Your task to perform on an android device: turn on notifications settings in the gmail app Image 0: 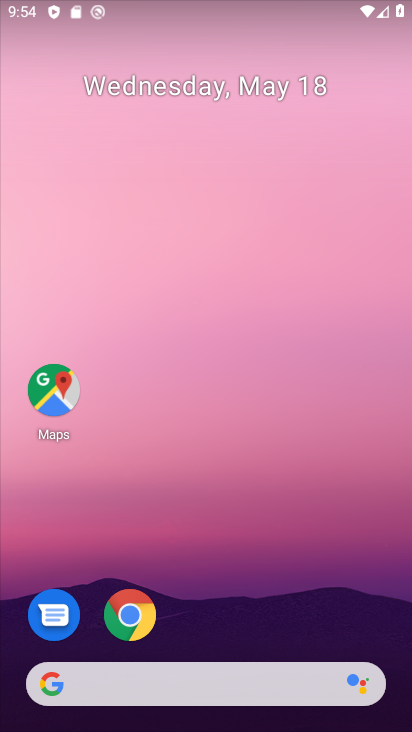
Step 0: drag from (243, 656) to (232, 261)
Your task to perform on an android device: turn on notifications settings in the gmail app Image 1: 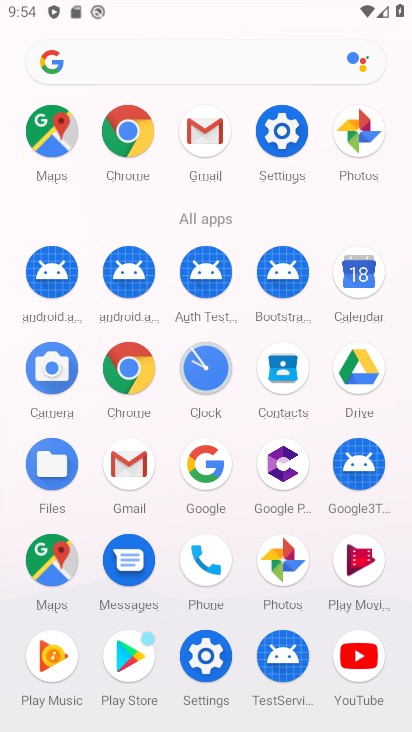
Step 1: click (194, 130)
Your task to perform on an android device: turn on notifications settings in the gmail app Image 2: 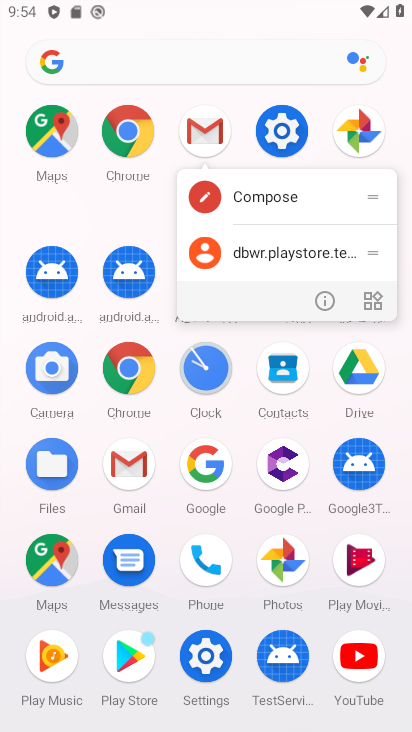
Step 2: click (213, 125)
Your task to perform on an android device: turn on notifications settings in the gmail app Image 3: 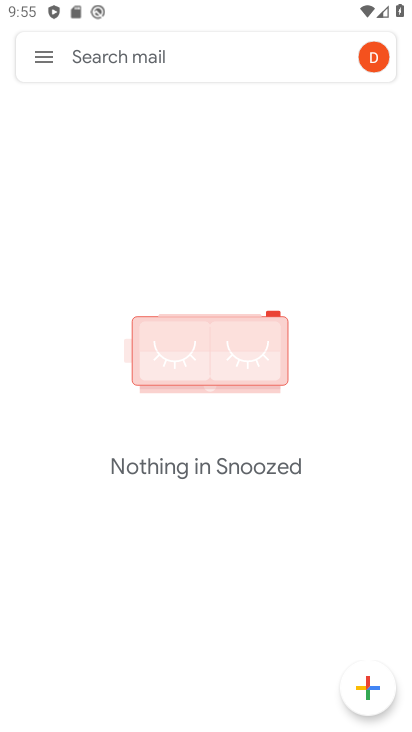
Step 3: click (52, 49)
Your task to perform on an android device: turn on notifications settings in the gmail app Image 4: 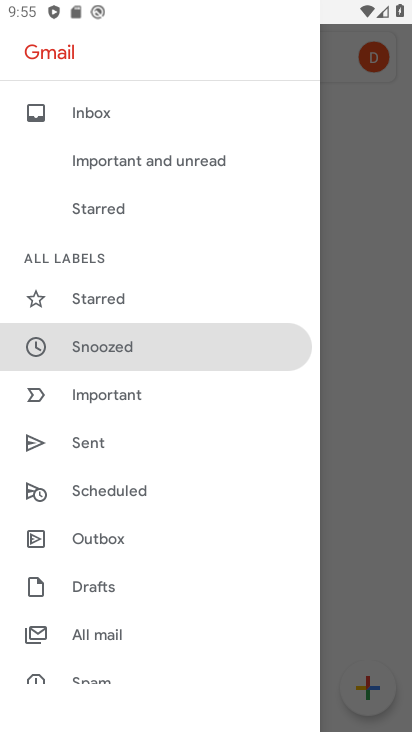
Step 4: drag from (92, 661) to (103, 229)
Your task to perform on an android device: turn on notifications settings in the gmail app Image 5: 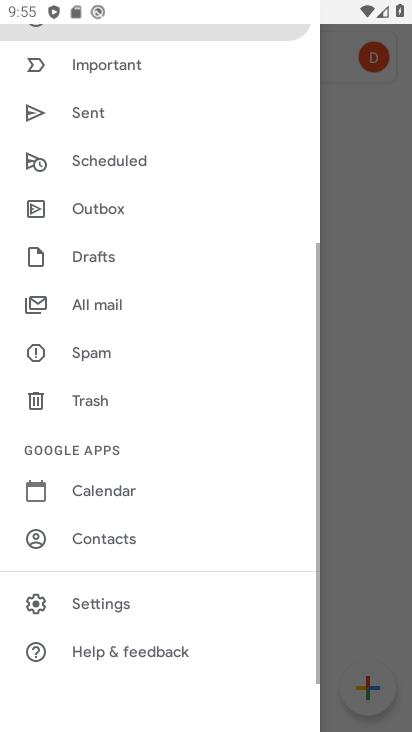
Step 5: click (98, 604)
Your task to perform on an android device: turn on notifications settings in the gmail app Image 6: 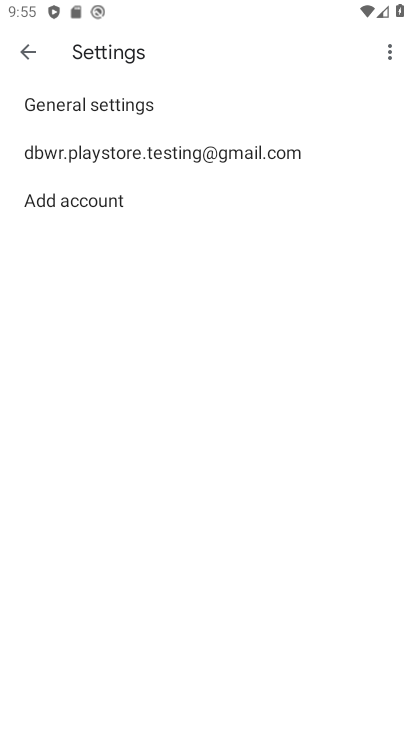
Step 6: click (80, 108)
Your task to perform on an android device: turn on notifications settings in the gmail app Image 7: 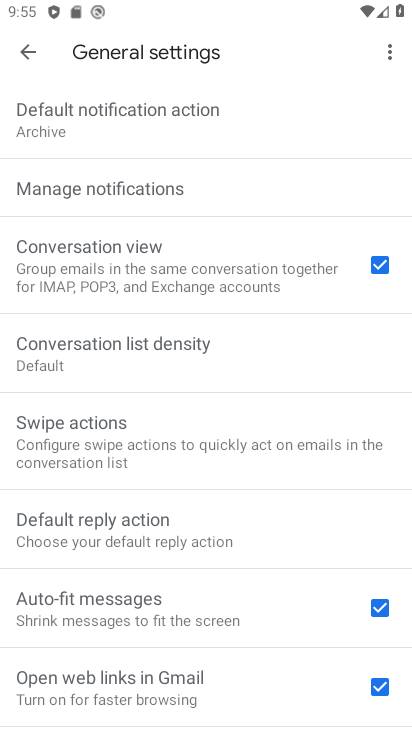
Step 7: click (100, 188)
Your task to perform on an android device: turn on notifications settings in the gmail app Image 8: 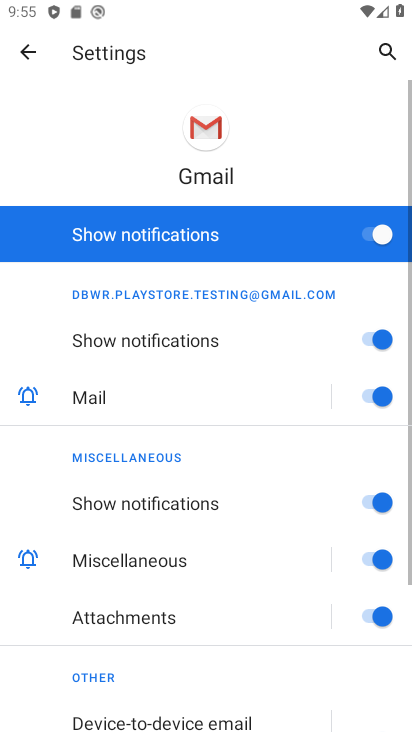
Step 8: click (105, 190)
Your task to perform on an android device: turn on notifications settings in the gmail app Image 9: 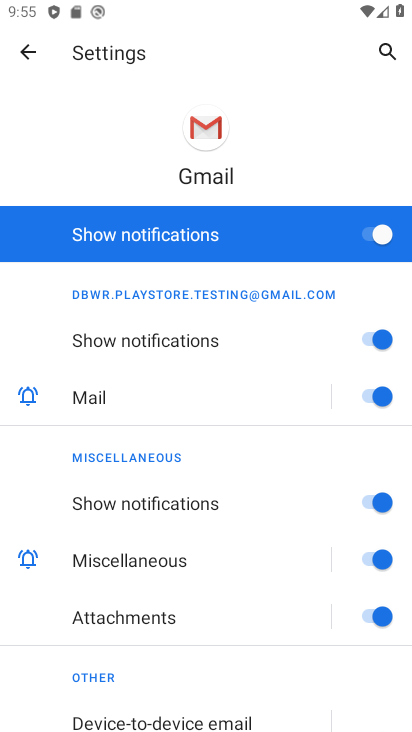
Step 9: task complete